Your task to perform on an android device: change the clock display to analog Image 0: 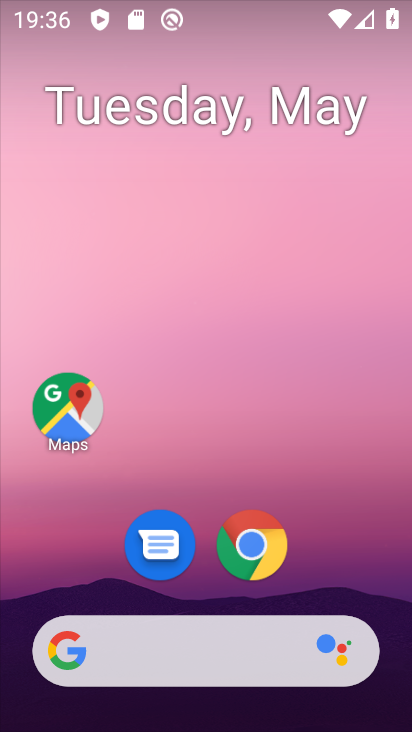
Step 0: drag from (393, 588) to (369, 51)
Your task to perform on an android device: change the clock display to analog Image 1: 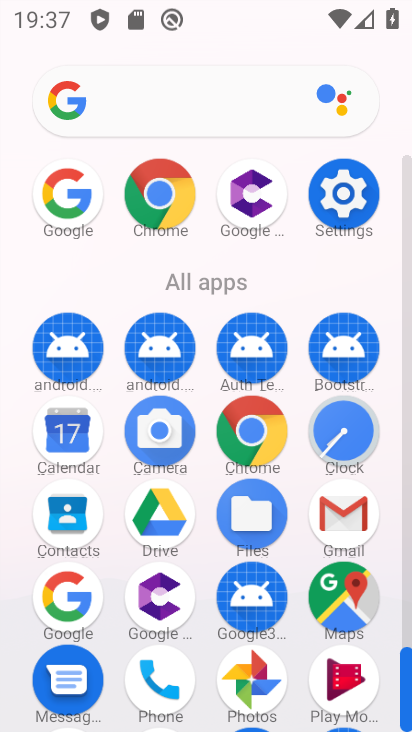
Step 1: click (360, 446)
Your task to perform on an android device: change the clock display to analog Image 2: 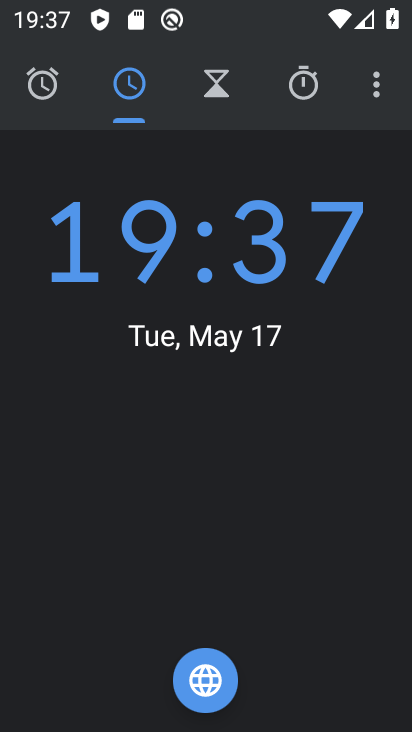
Step 2: click (379, 108)
Your task to perform on an android device: change the clock display to analog Image 3: 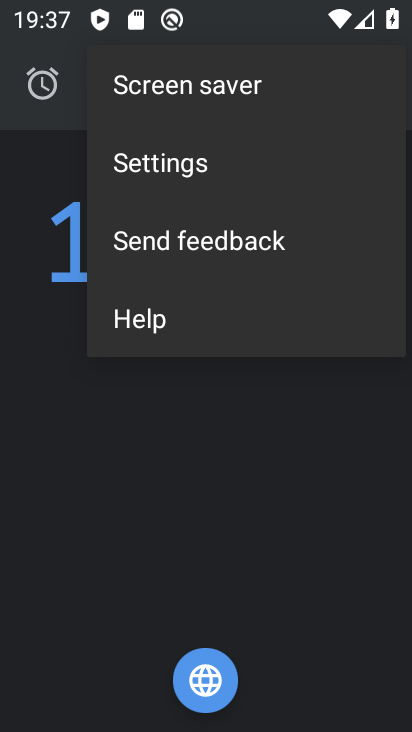
Step 3: click (219, 166)
Your task to perform on an android device: change the clock display to analog Image 4: 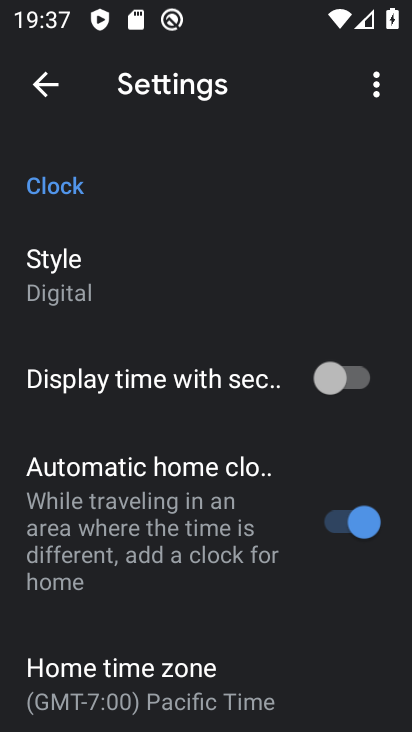
Step 4: click (144, 260)
Your task to perform on an android device: change the clock display to analog Image 5: 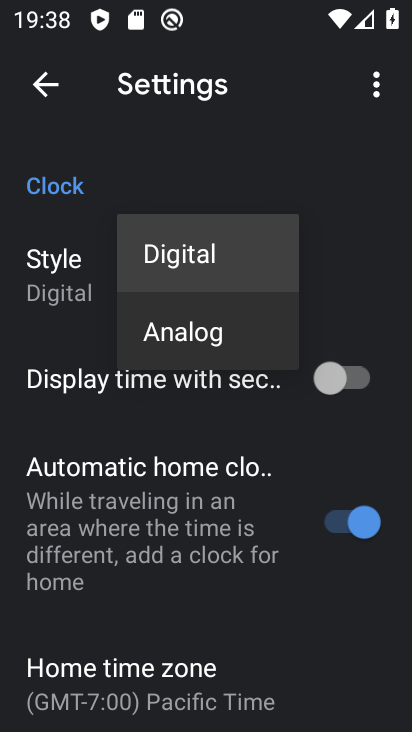
Step 5: click (198, 328)
Your task to perform on an android device: change the clock display to analog Image 6: 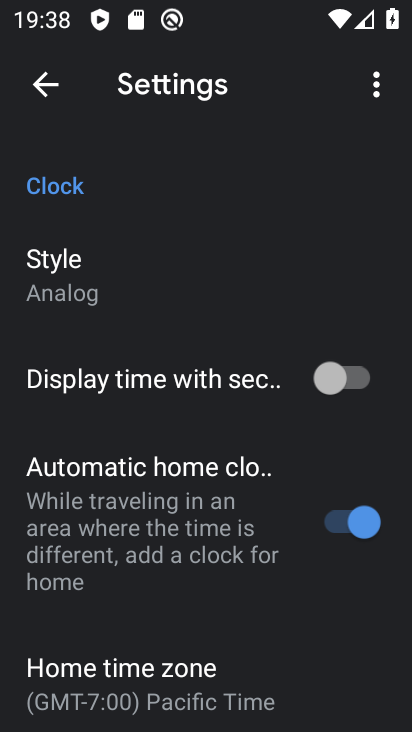
Step 6: task complete